Your task to perform on an android device: make emails show in primary in the gmail app Image 0: 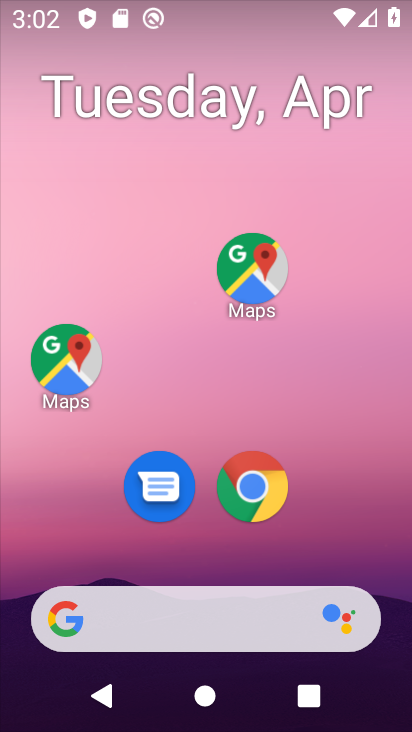
Step 0: drag from (322, 483) to (349, 168)
Your task to perform on an android device: make emails show in primary in the gmail app Image 1: 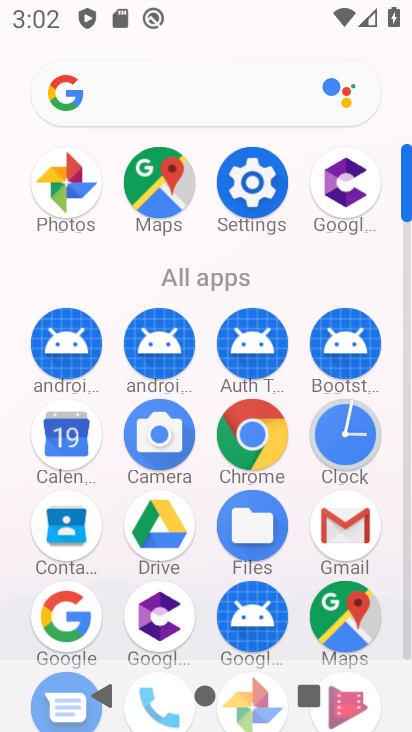
Step 1: click (336, 536)
Your task to perform on an android device: make emails show in primary in the gmail app Image 2: 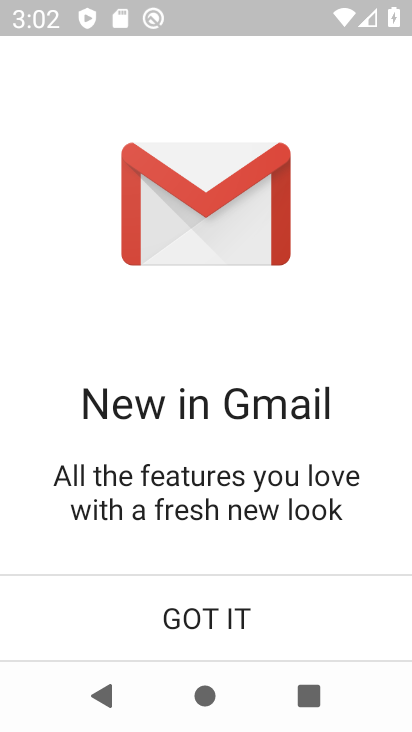
Step 2: click (211, 621)
Your task to perform on an android device: make emails show in primary in the gmail app Image 3: 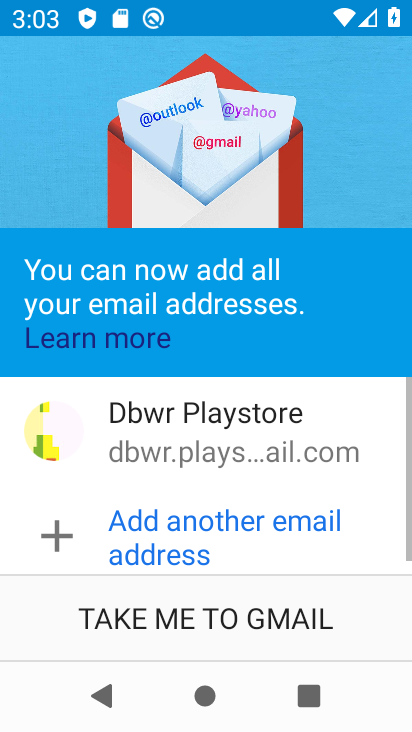
Step 3: click (211, 621)
Your task to perform on an android device: make emails show in primary in the gmail app Image 4: 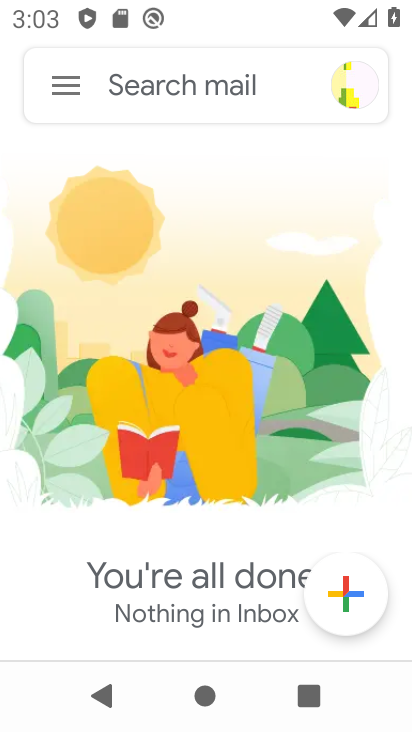
Step 4: click (59, 94)
Your task to perform on an android device: make emails show in primary in the gmail app Image 5: 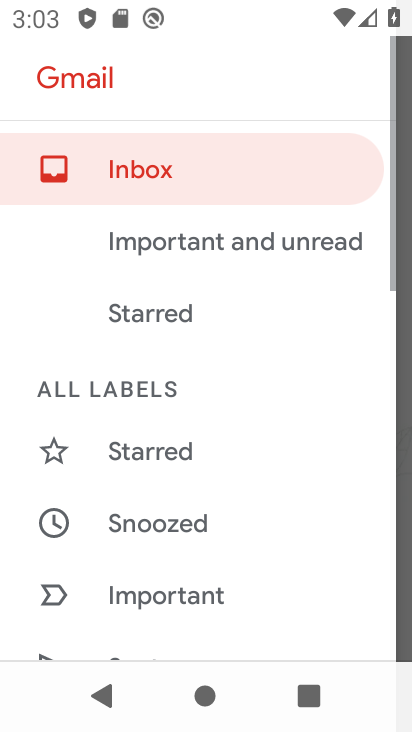
Step 5: drag from (211, 572) to (238, 263)
Your task to perform on an android device: make emails show in primary in the gmail app Image 6: 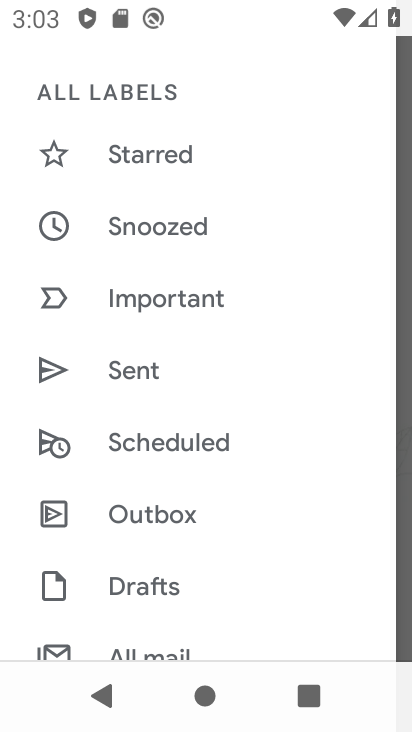
Step 6: drag from (222, 581) to (270, 251)
Your task to perform on an android device: make emails show in primary in the gmail app Image 7: 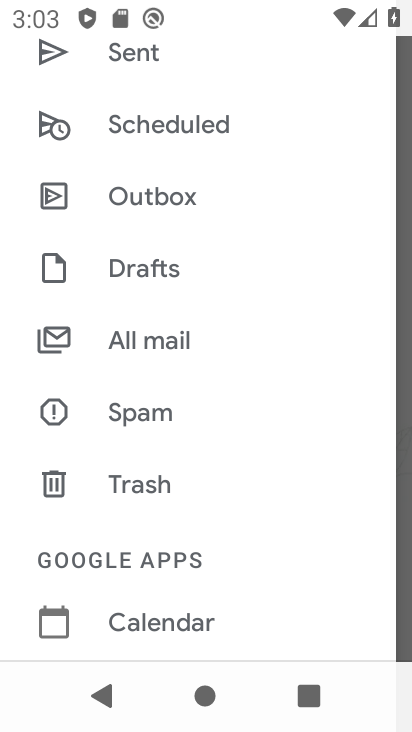
Step 7: click (168, 357)
Your task to perform on an android device: make emails show in primary in the gmail app Image 8: 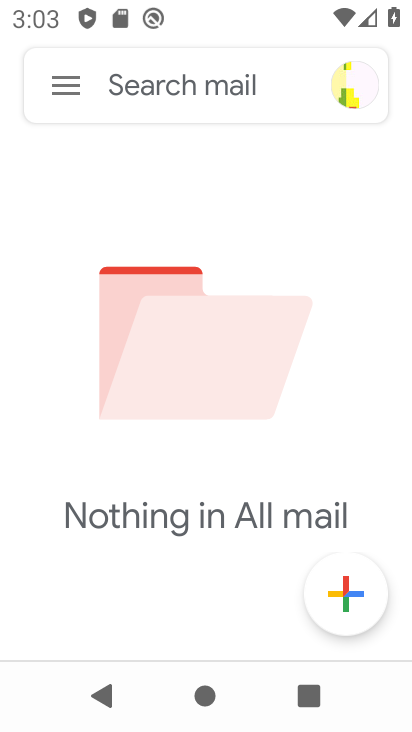
Step 8: task complete